Your task to perform on an android device: Open the calendar app, open the side menu, and click the "Day" option Image 0: 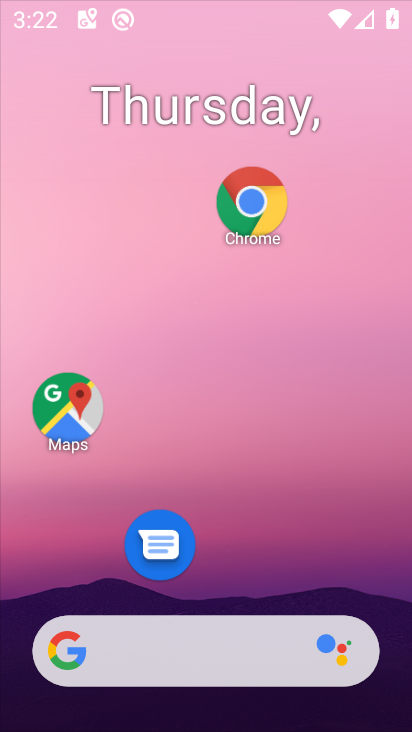
Step 0: click (236, 157)
Your task to perform on an android device: Open the calendar app, open the side menu, and click the "Day" option Image 1: 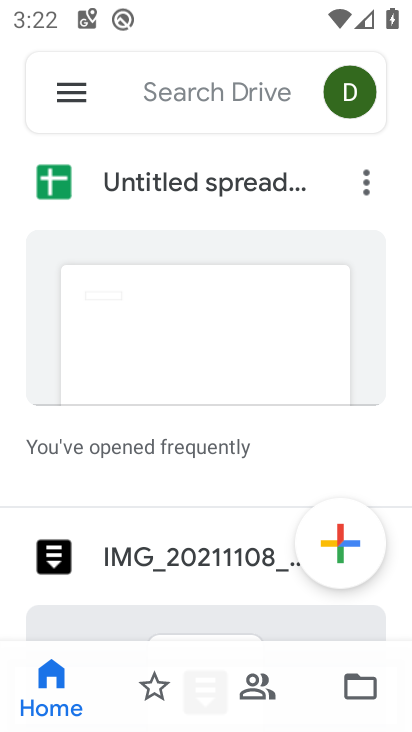
Step 1: press home button
Your task to perform on an android device: Open the calendar app, open the side menu, and click the "Day" option Image 2: 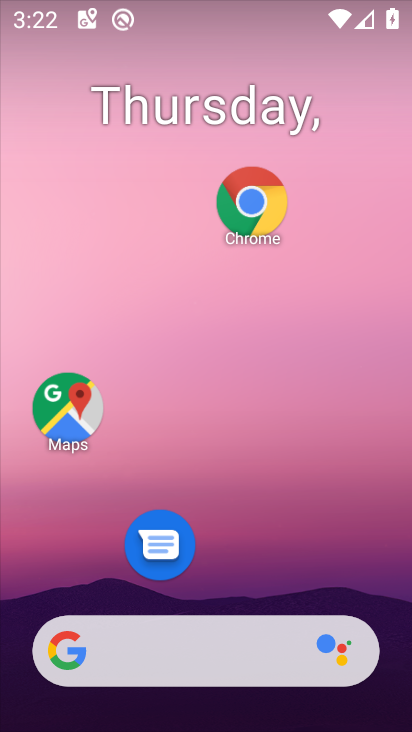
Step 2: drag from (123, 611) to (160, 131)
Your task to perform on an android device: Open the calendar app, open the side menu, and click the "Day" option Image 3: 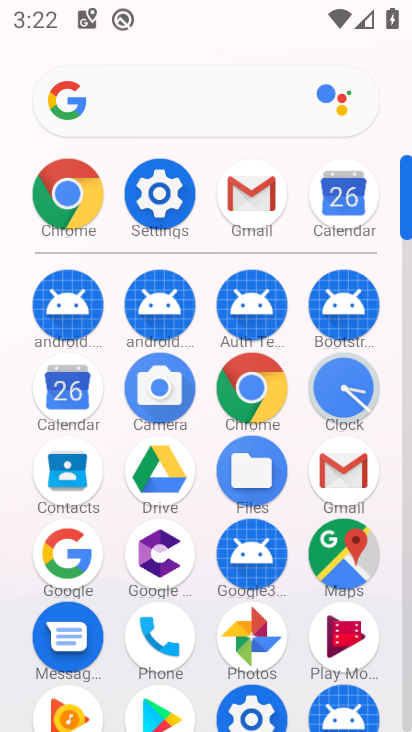
Step 3: click (358, 202)
Your task to perform on an android device: Open the calendar app, open the side menu, and click the "Day" option Image 4: 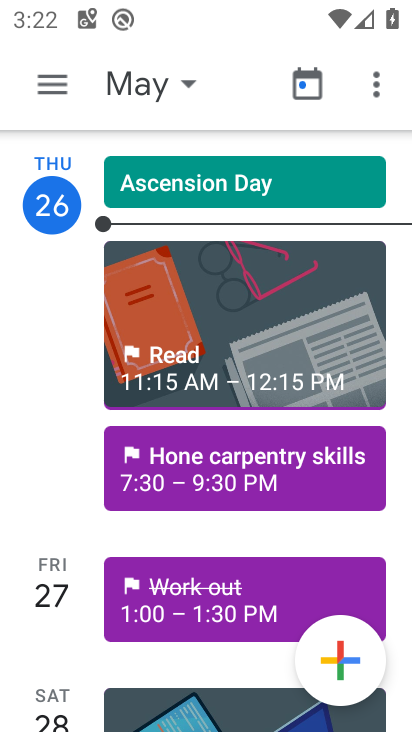
Step 4: click (55, 89)
Your task to perform on an android device: Open the calendar app, open the side menu, and click the "Day" option Image 5: 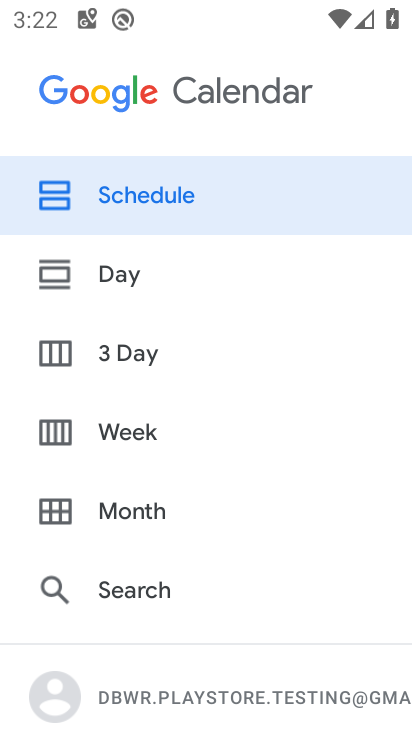
Step 5: click (116, 284)
Your task to perform on an android device: Open the calendar app, open the side menu, and click the "Day" option Image 6: 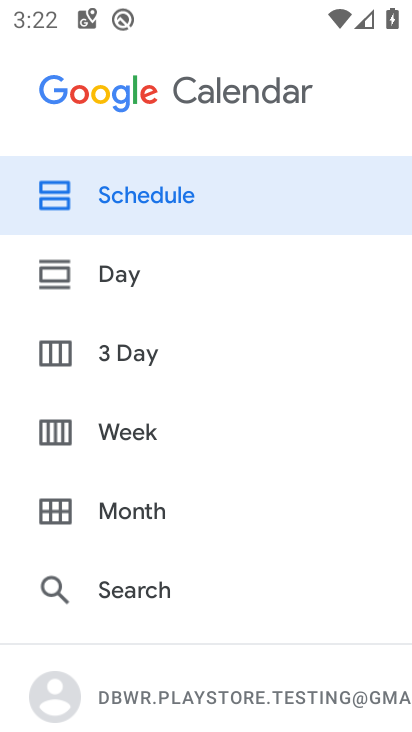
Step 6: click (108, 280)
Your task to perform on an android device: Open the calendar app, open the side menu, and click the "Day" option Image 7: 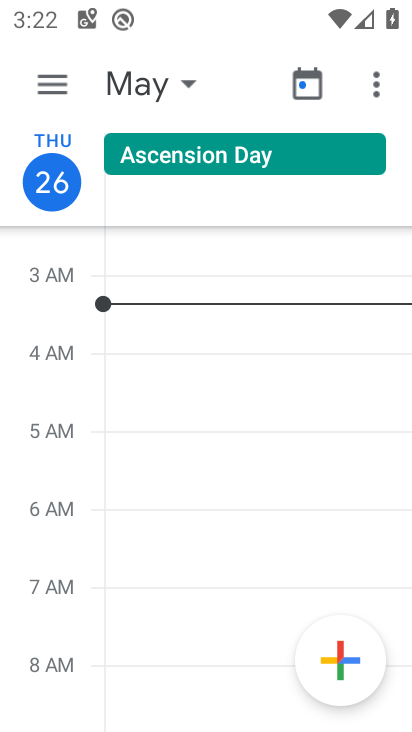
Step 7: task complete